Your task to perform on an android device: turn off airplane mode Image 0: 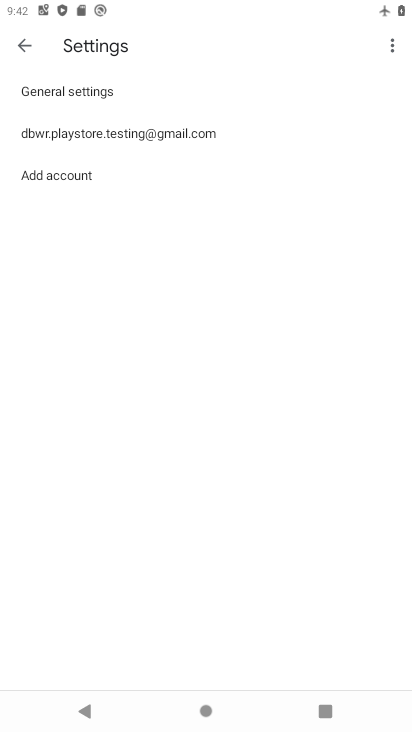
Step 0: press home button
Your task to perform on an android device: turn off airplane mode Image 1: 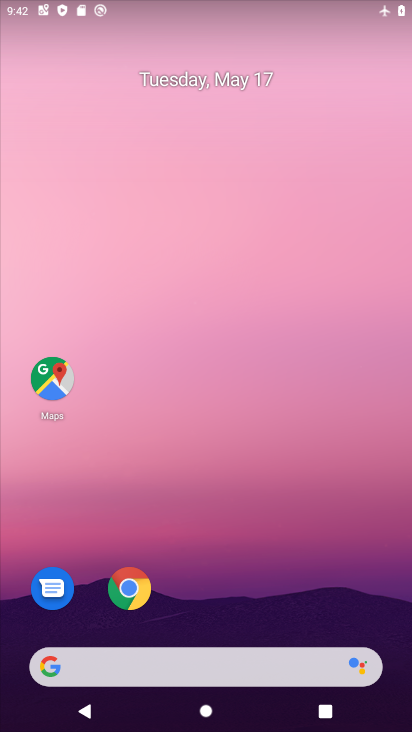
Step 1: drag from (211, 639) to (189, 116)
Your task to perform on an android device: turn off airplane mode Image 2: 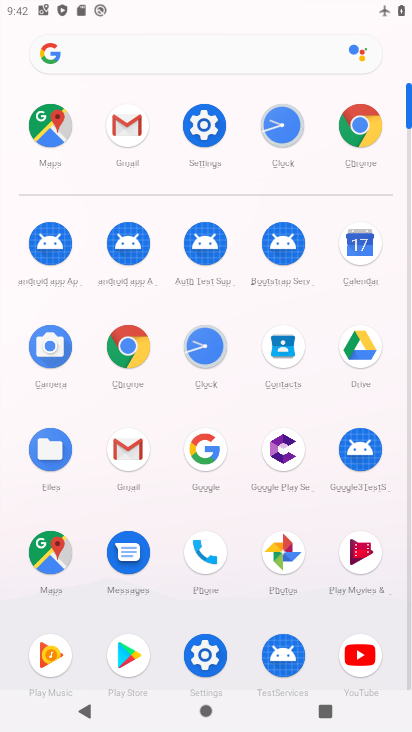
Step 2: click (212, 141)
Your task to perform on an android device: turn off airplane mode Image 3: 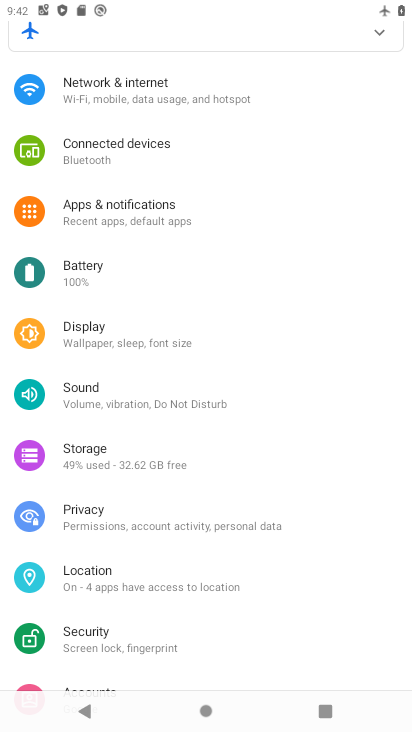
Step 3: click (132, 99)
Your task to perform on an android device: turn off airplane mode Image 4: 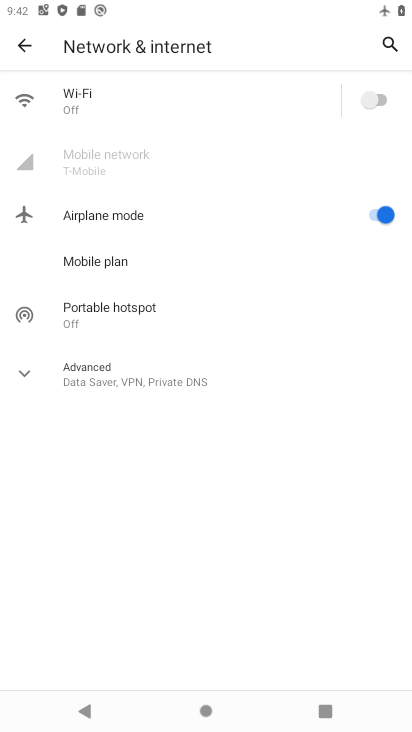
Step 4: click (386, 209)
Your task to perform on an android device: turn off airplane mode Image 5: 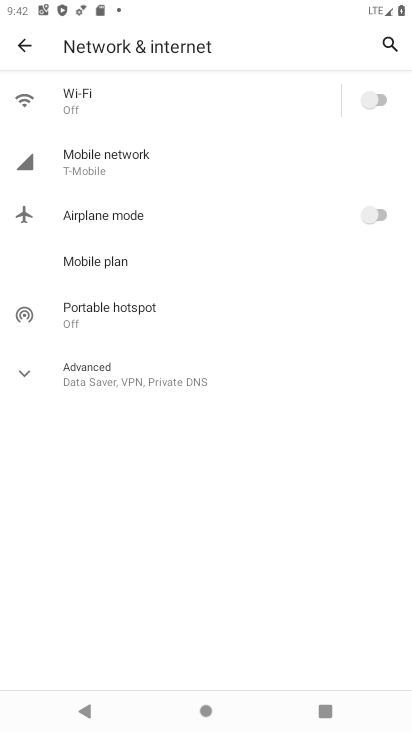
Step 5: task complete